Your task to perform on an android device: turn off wifi Image 0: 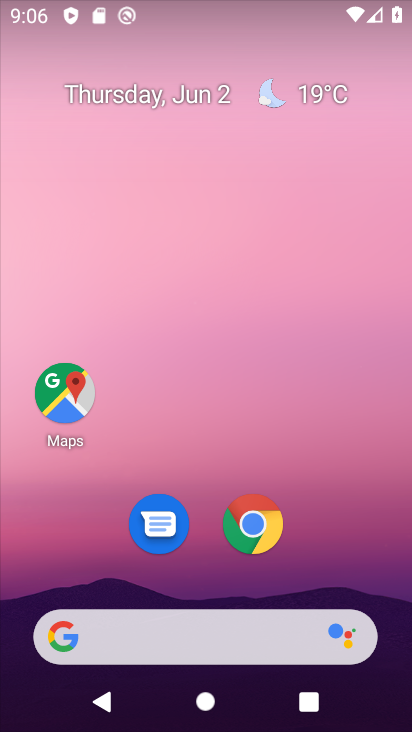
Step 0: drag from (213, 412) to (217, 0)
Your task to perform on an android device: turn off wifi Image 1: 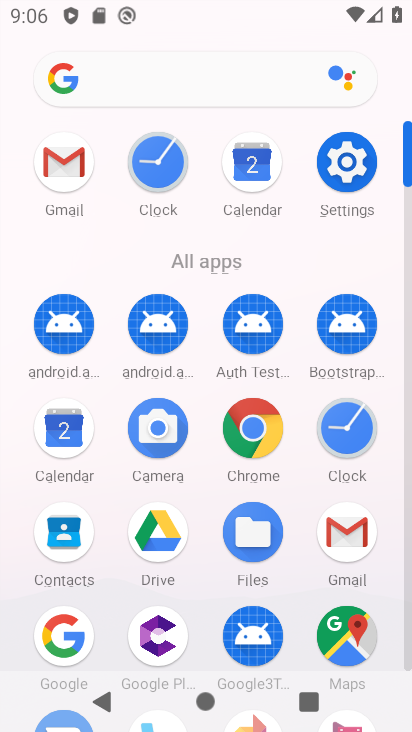
Step 1: click (341, 165)
Your task to perform on an android device: turn off wifi Image 2: 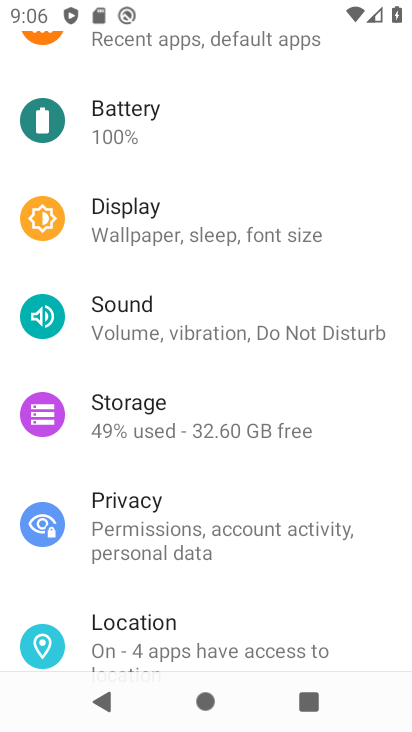
Step 2: drag from (244, 291) to (238, 652)
Your task to perform on an android device: turn off wifi Image 3: 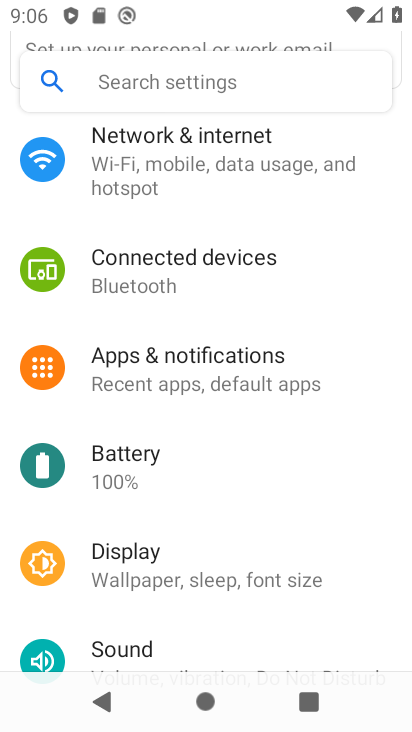
Step 3: click (234, 163)
Your task to perform on an android device: turn off wifi Image 4: 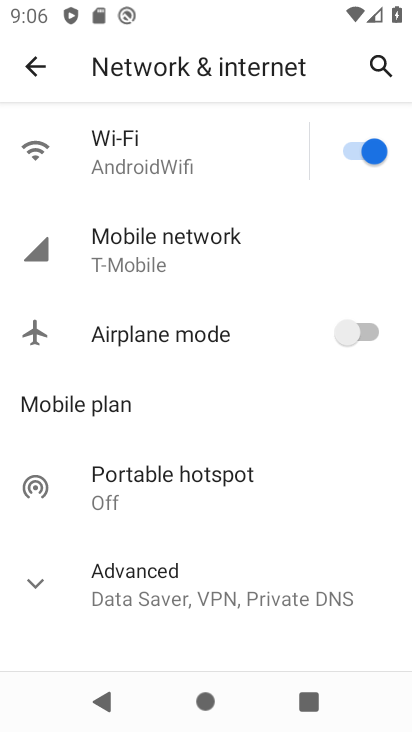
Step 4: click (351, 140)
Your task to perform on an android device: turn off wifi Image 5: 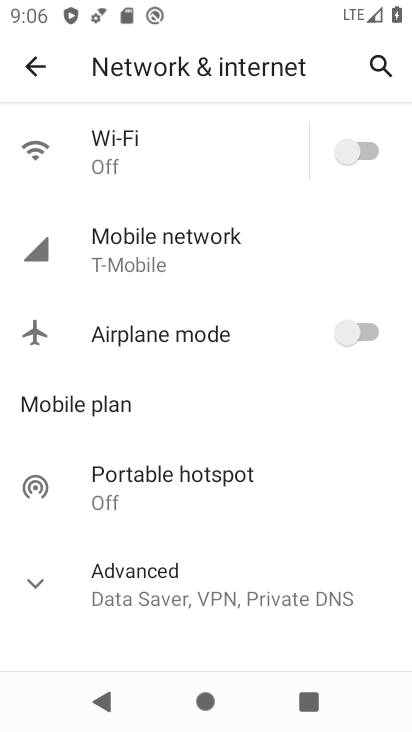
Step 5: task complete